Your task to perform on an android device: turn on improve location accuracy Image 0: 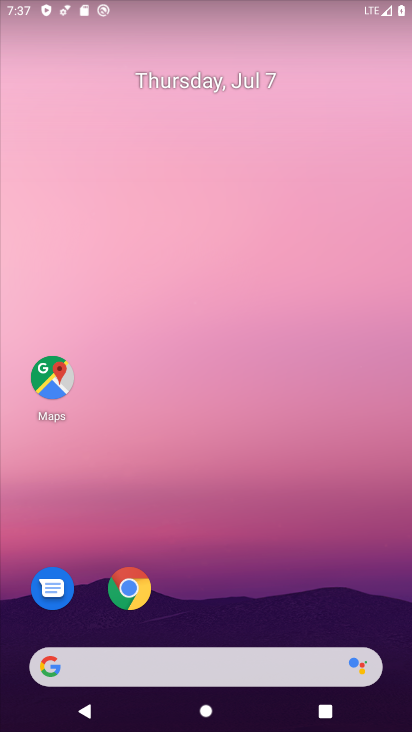
Step 0: click (291, 120)
Your task to perform on an android device: turn on improve location accuracy Image 1: 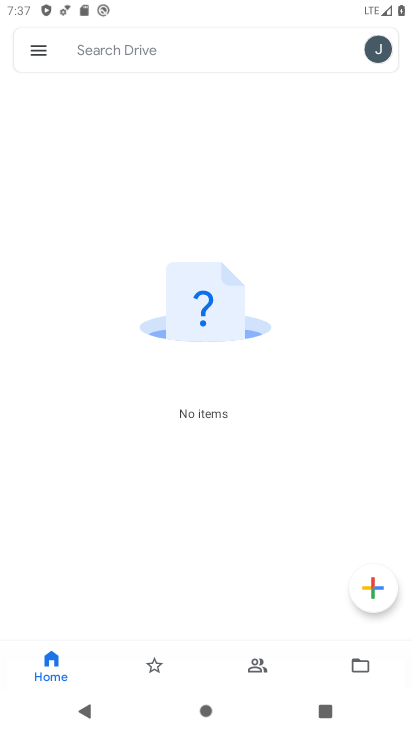
Step 1: press home button
Your task to perform on an android device: turn on improve location accuracy Image 2: 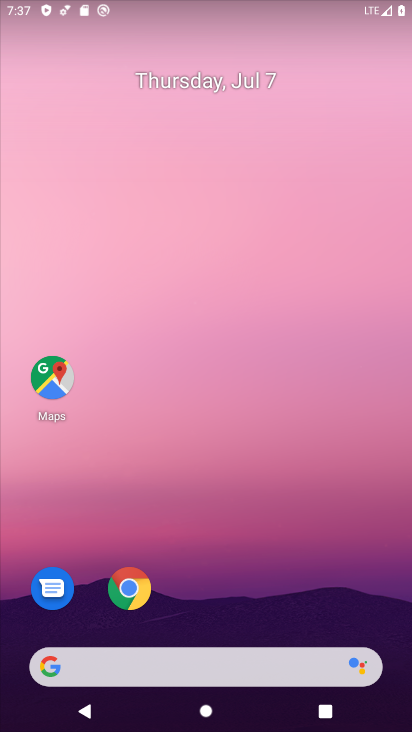
Step 2: drag from (205, 606) to (260, 150)
Your task to perform on an android device: turn on improve location accuracy Image 3: 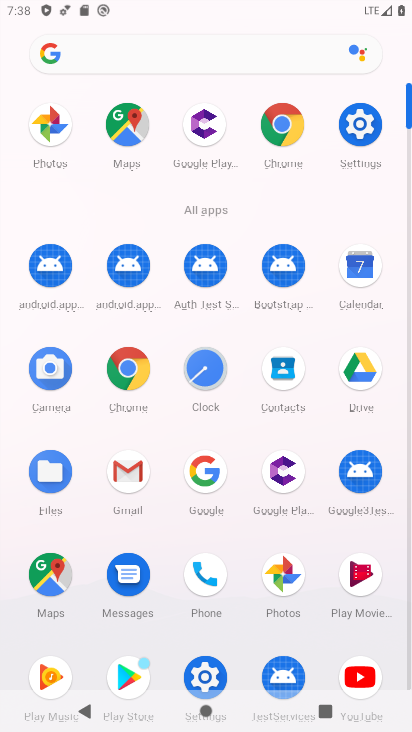
Step 3: click (366, 111)
Your task to perform on an android device: turn on improve location accuracy Image 4: 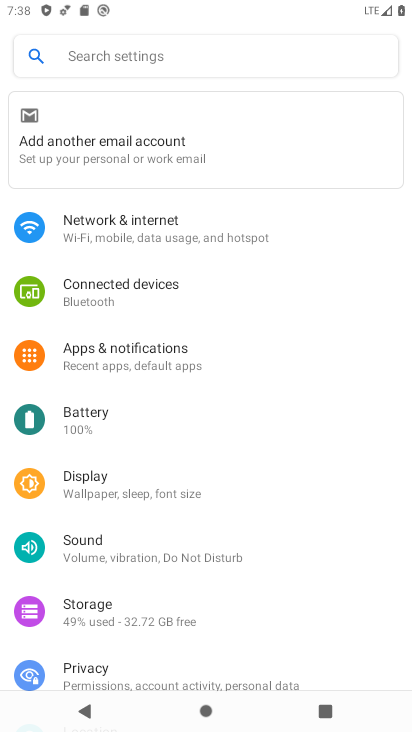
Step 4: drag from (196, 571) to (198, 186)
Your task to perform on an android device: turn on improve location accuracy Image 5: 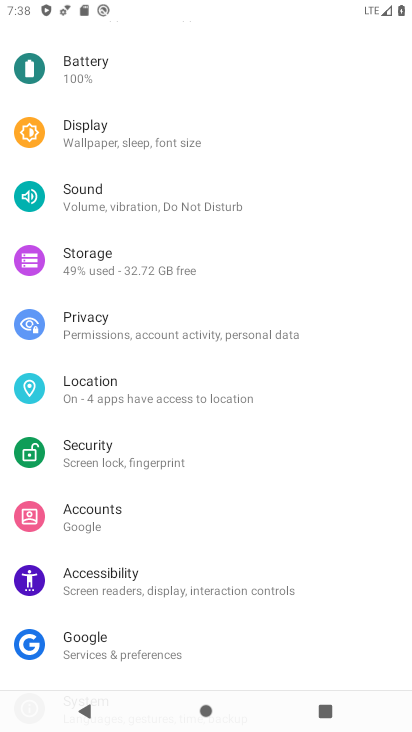
Step 5: click (159, 462)
Your task to perform on an android device: turn on improve location accuracy Image 6: 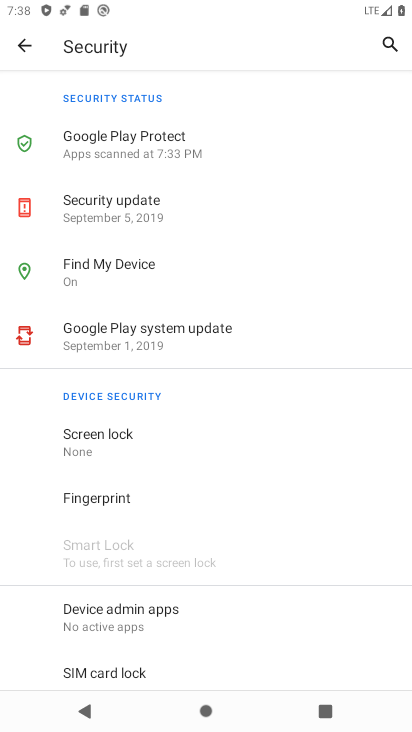
Step 6: click (37, 34)
Your task to perform on an android device: turn on improve location accuracy Image 7: 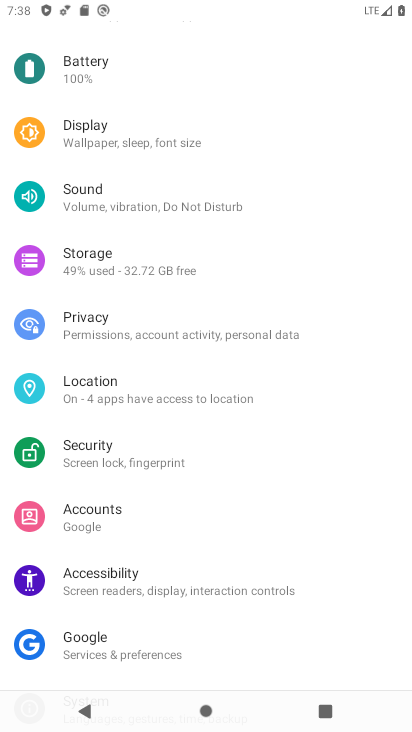
Step 7: click (102, 380)
Your task to perform on an android device: turn on improve location accuracy Image 8: 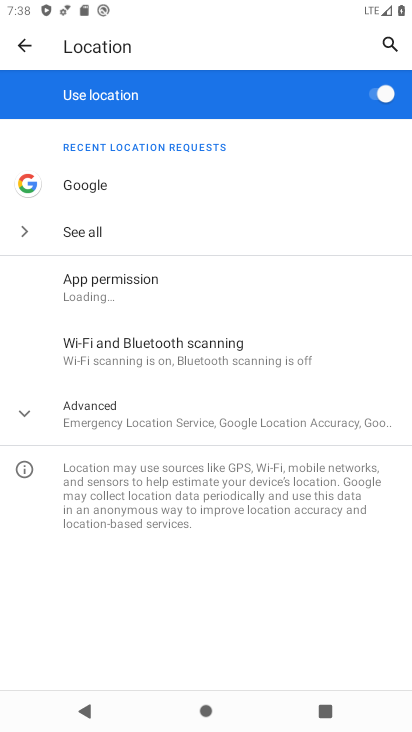
Step 8: click (142, 407)
Your task to perform on an android device: turn on improve location accuracy Image 9: 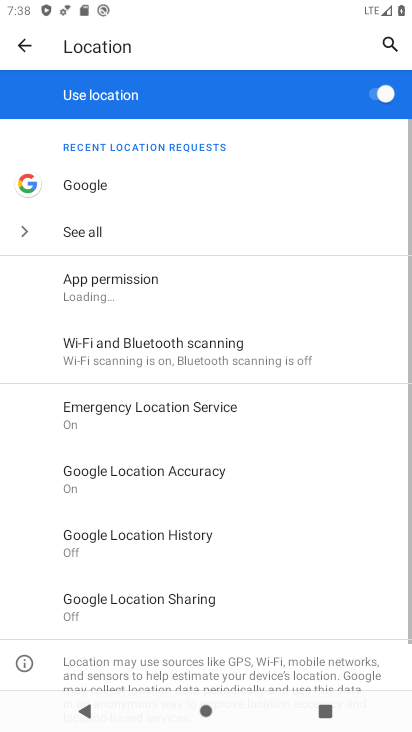
Step 9: click (174, 469)
Your task to perform on an android device: turn on improve location accuracy Image 10: 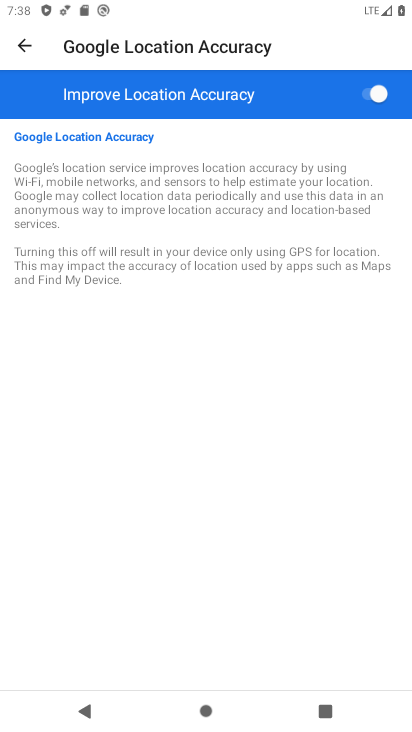
Step 10: task complete